Your task to perform on an android device: Open Youtube and go to the subscriptions tab Image 0: 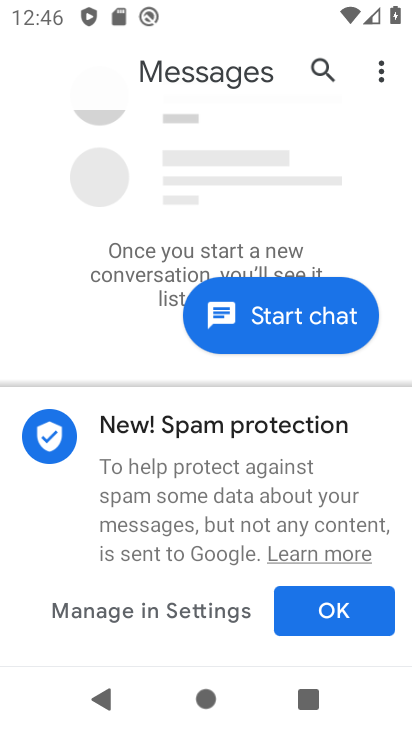
Step 0: press home button
Your task to perform on an android device: Open Youtube and go to the subscriptions tab Image 1: 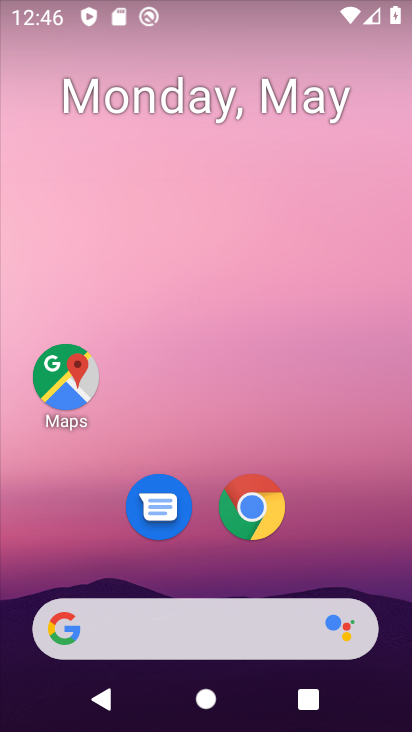
Step 1: drag from (306, 449) to (271, 100)
Your task to perform on an android device: Open Youtube and go to the subscriptions tab Image 2: 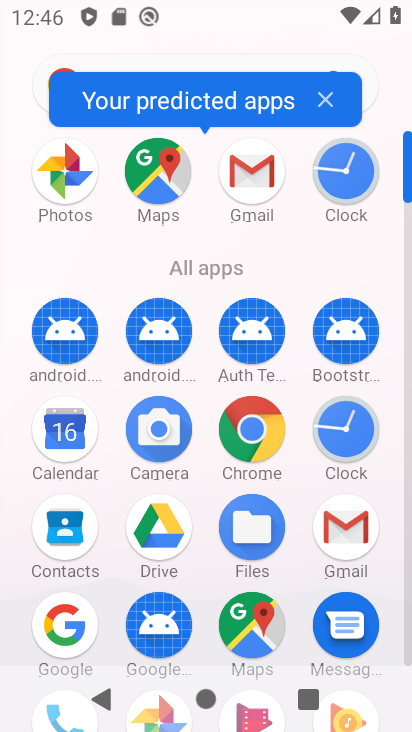
Step 2: drag from (293, 550) to (346, 84)
Your task to perform on an android device: Open Youtube and go to the subscriptions tab Image 3: 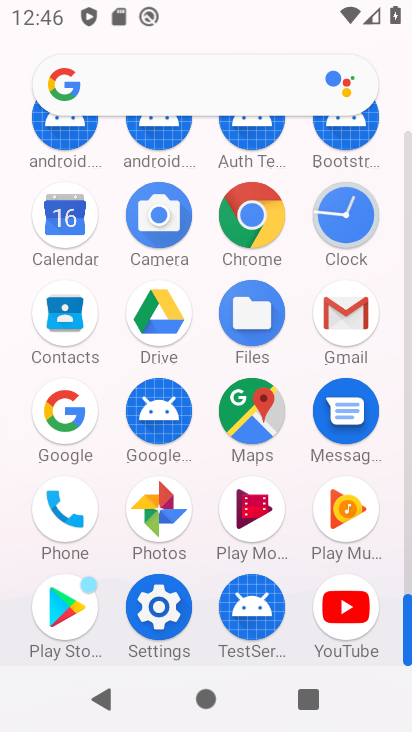
Step 3: click (348, 621)
Your task to perform on an android device: Open Youtube and go to the subscriptions tab Image 4: 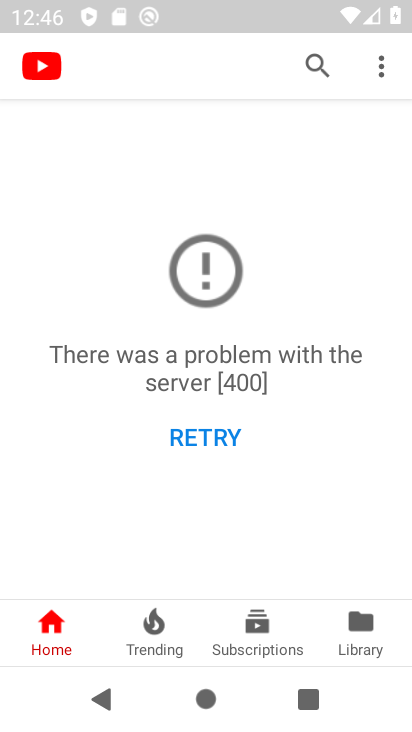
Step 4: task complete